Your task to perform on an android device: Open Google Chrome and click the shortcut for Amazon.com Image 0: 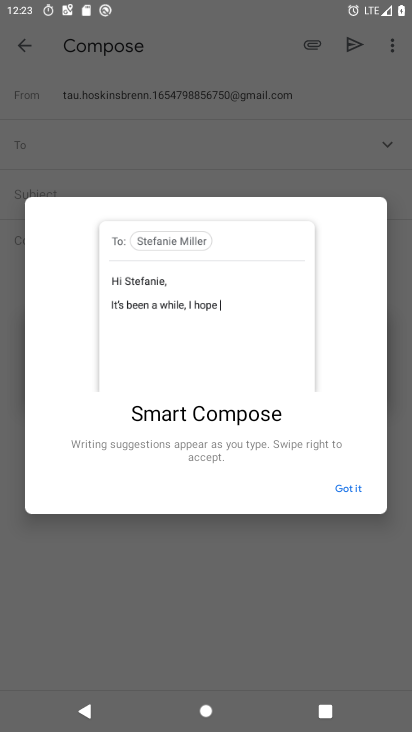
Step 0: press home button
Your task to perform on an android device: Open Google Chrome and click the shortcut for Amazon.com Image 1: 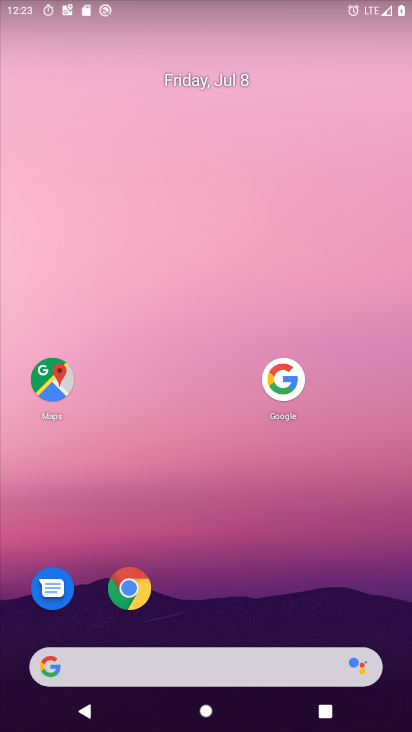
Step 1: drag from (152, 668) to (214, 153)
Your task to perform on an android device: Open Google Chrome and click the shortcut for Amazon.com Image 2: 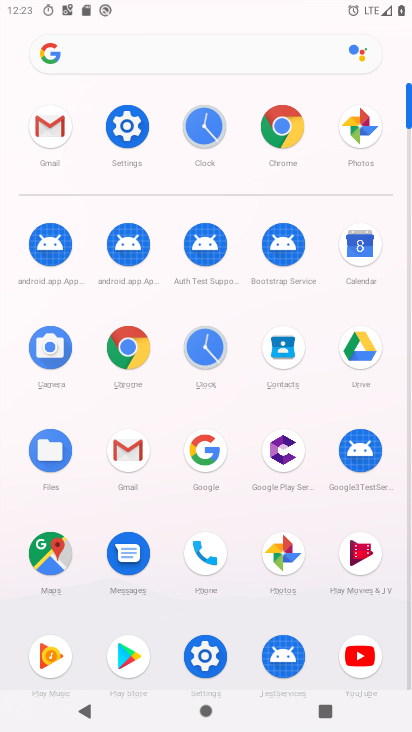
Step 2: click (284, 125)
Your task to perform on an android device: Open Google Chrome and click the shortcut for Amazon.com Image 3: 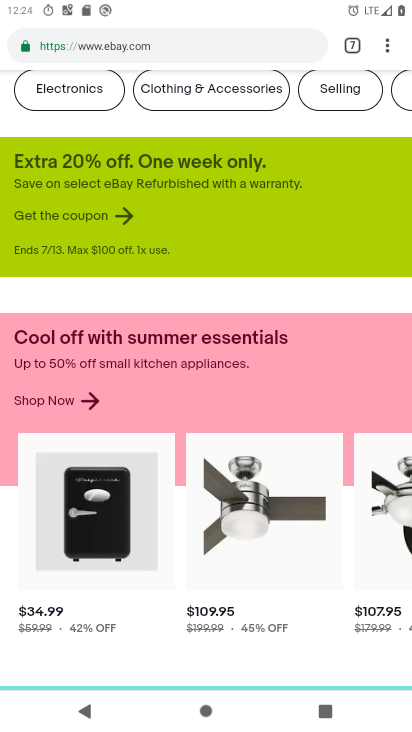
Step 3: drag from (287, 120) to (255, 562)
Your task to perform on an android device: Open Google Chrome and click the shortcut for Amazon.com Image 4: 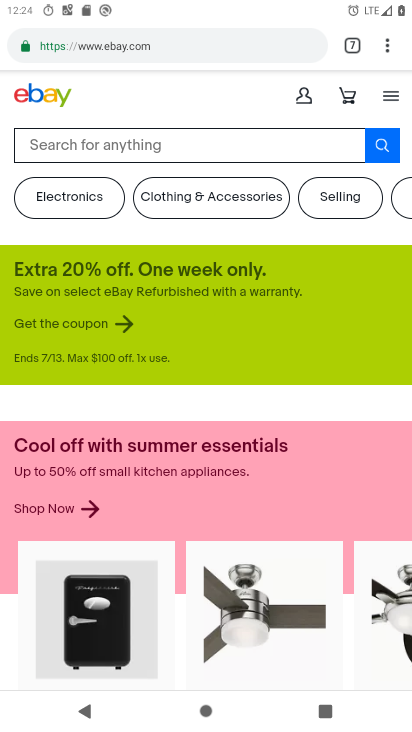
Step 4: drag from (386, 46) to (246, 91)
Your task to perform on an android device: Open Google Chrome and click the shortcut for Amazon.com Image 5: 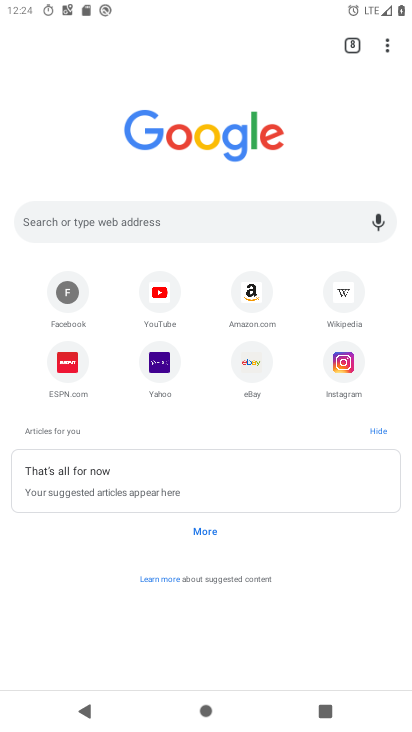
Step 5: click (250, 284)
Your task to perform on an android device: Open Google Chrome and click the shortcut for Amazon.com Image 6: 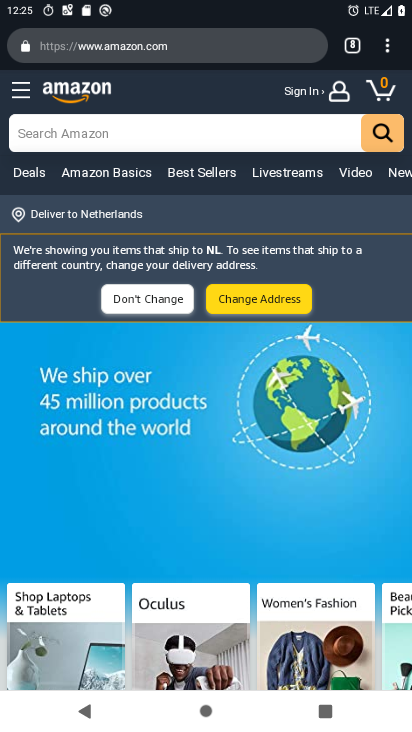
Step 6: task complete